Your task to perform on an android device: check data usage Image 0: 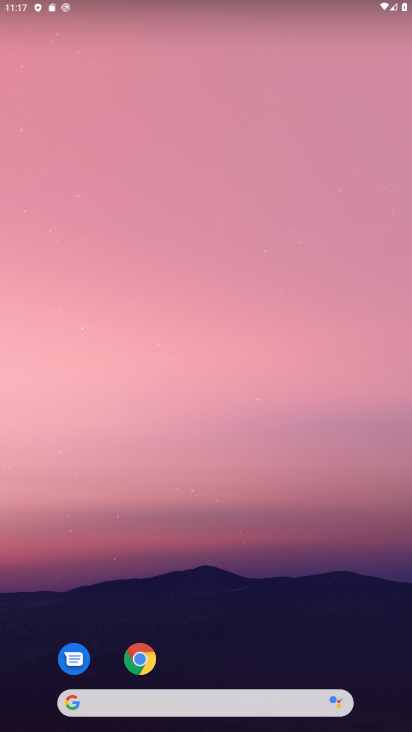
Step 0: drag from (197, 658) to (219, 128)
Your task to perform on an android device: check data usage Image 1: 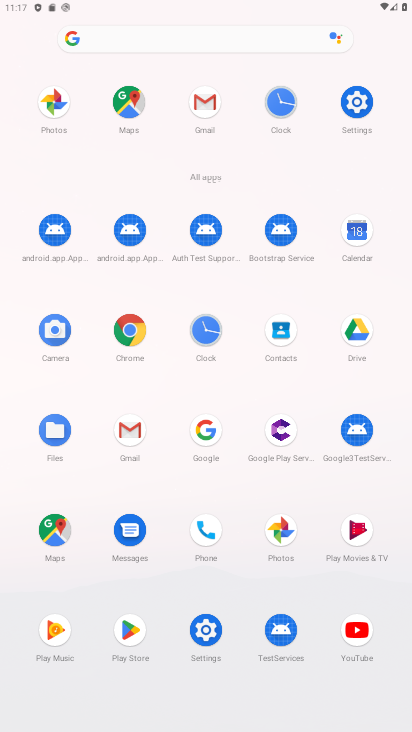
Step 1: click (354, 101)
Your task to perform on an android device: check data usage Image 2: 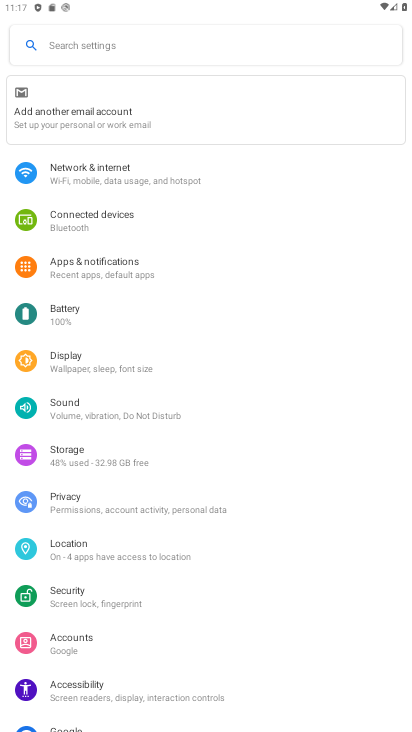
Step 2: click (105, 169)
Your task to perform on an android device: check data usage Image 3: 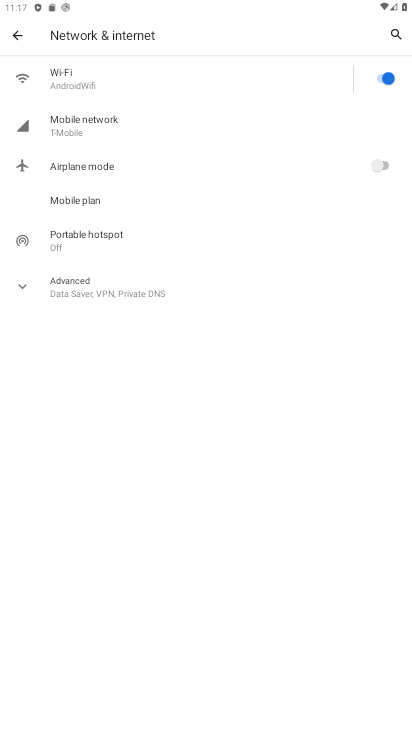
Step 3: click (115, 120)
Your task to perform on an android device: check data usage Image 4: 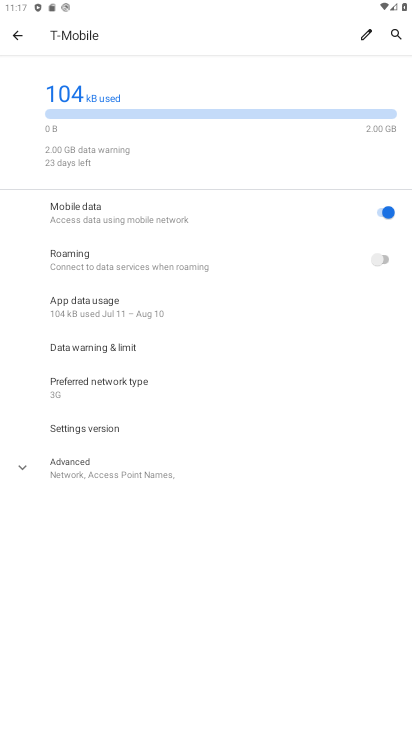
Step 4: task complete